Your task to perform on an android device: Check the weather Image 0: 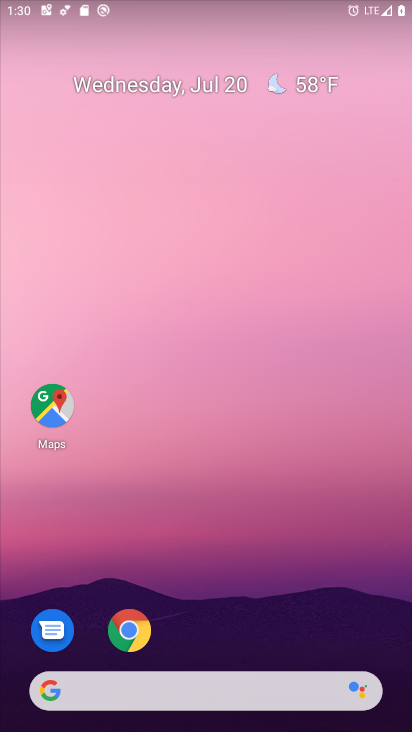
Step 0: drag from (254, 675) to (199, 181)
Your task to perform on an android device: Check the weather Image 1: 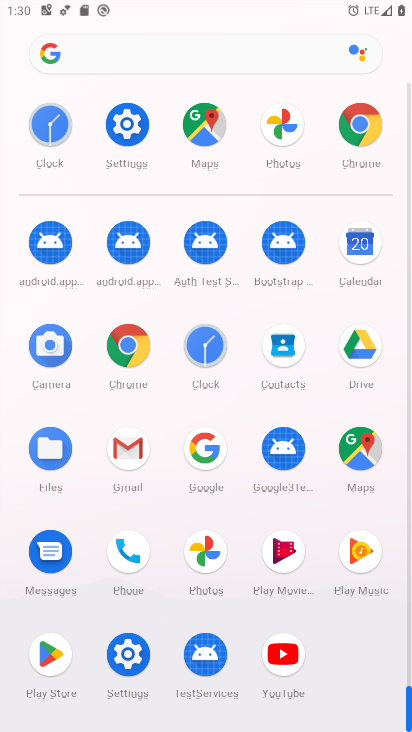
Step 1: drag from (196, 480) to (217, 231)
Your task to perform on an android device: Check the weather Image 2: 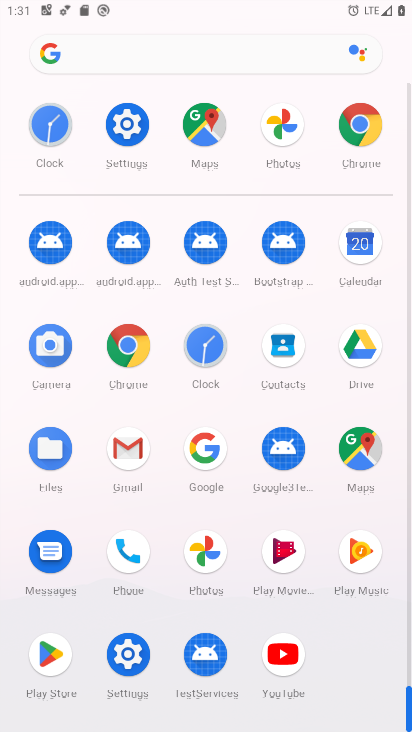
Step 2: click (219, 486)
Your task to perform on an android device: Check the weather Image 3: 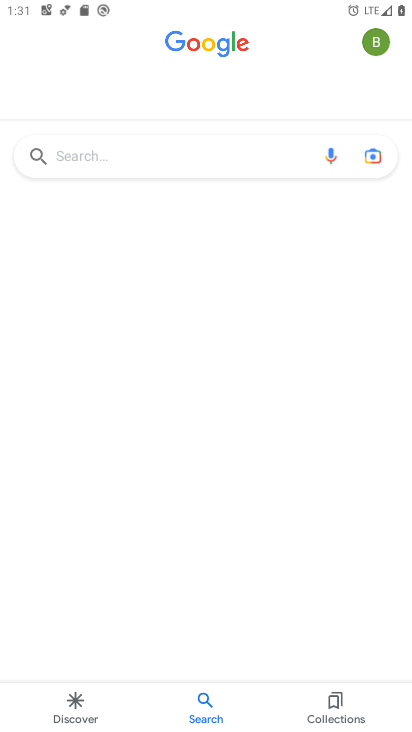
Step 3: click (188, 173)
Your task to perform on an android device: Check the weather Image 4: 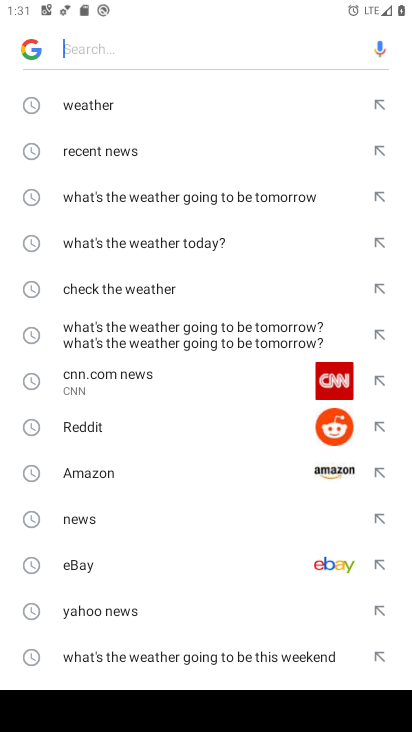
Step 4: click (140, 114)
Your task to perform on an android device: Check the weather Image 5: 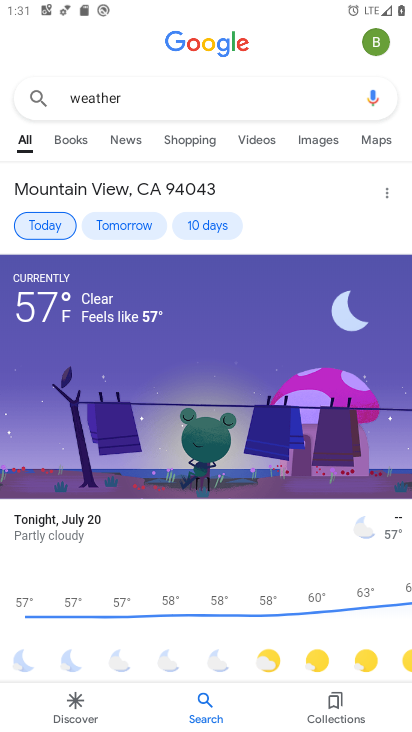
Step 5: task complete